Your task to perform on an android device: turn off airplane mode Image 0: 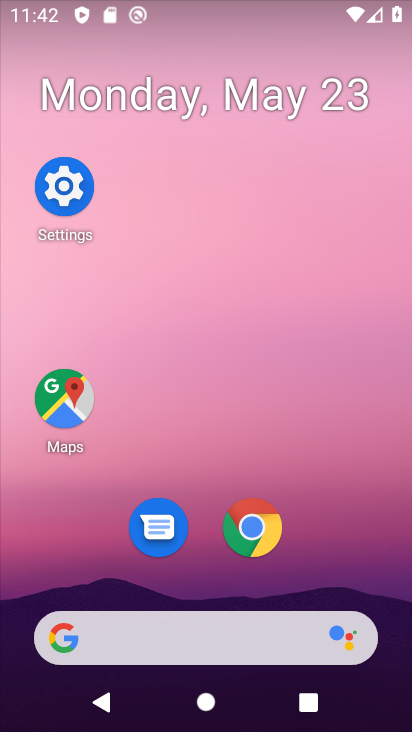
Step 0: click (76, 205)
Your task to perform on an android device: turn off airplane mode Image 1: 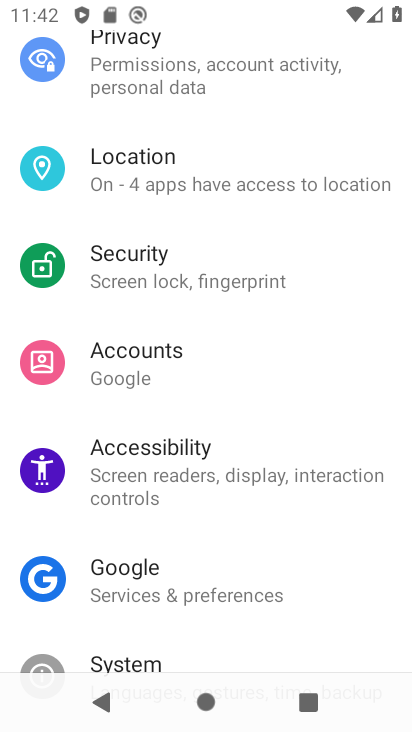
Step 1: drag from (250, 113) to (208, 531)
Your task to perform on an android device: turn off airplane mode Image 2: 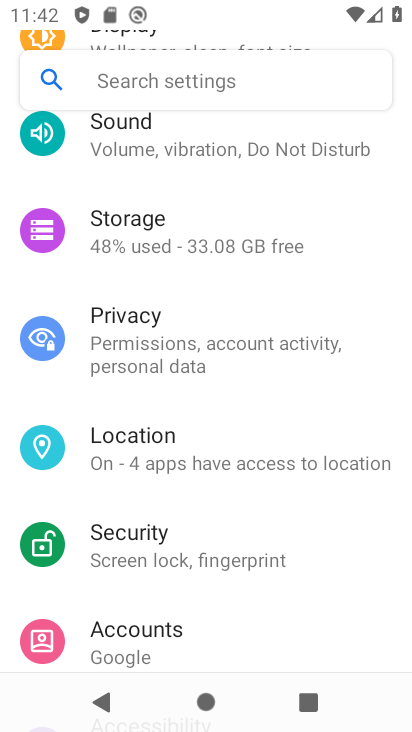
Step 2: drag from (215, 207) to (186, 616)
Your task to perform on an android device: turn off airplane mode Image 3: 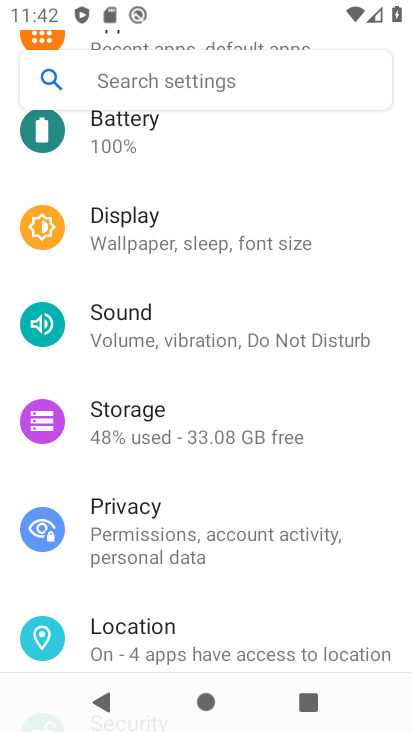
Step 3: drag from (328, 201) to (338, 631)
Your task to perform on an android device: turn off airplane mode Image 4: 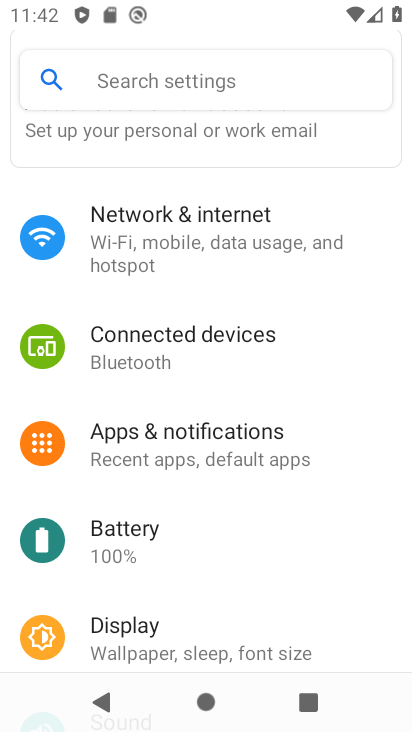
Step 4: click (268, 237)
Your task to perform on an android device: turn off airplane mode Image 5: 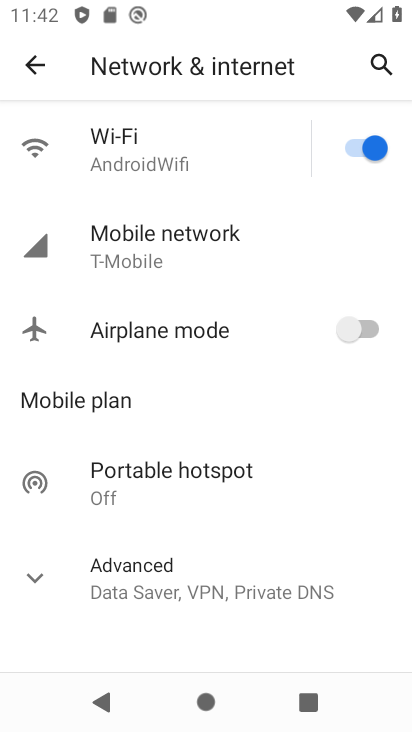
Step 5: task complete